Your task to perform on an android device: Go to settings Image 0: 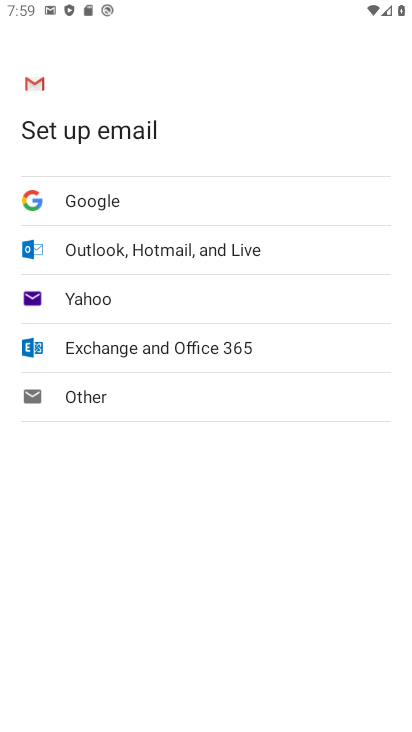
Step 0: press home button
Your task to perform on an android device: Go to settings Image 1: 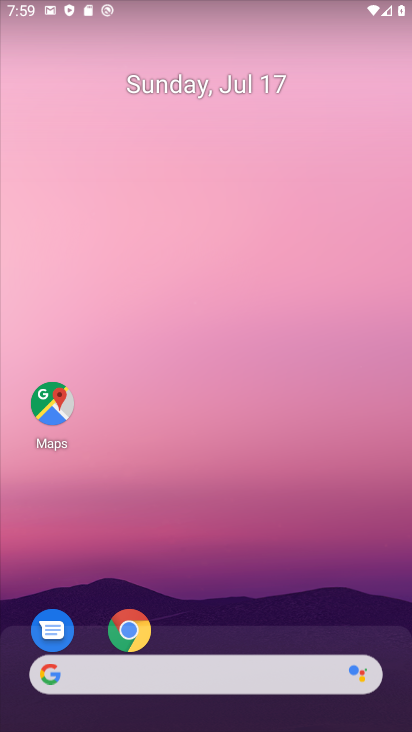
Step 1: drag from (252, 647) to (225, 217)
Your task to perform on an android device: Go to settings Image 2: 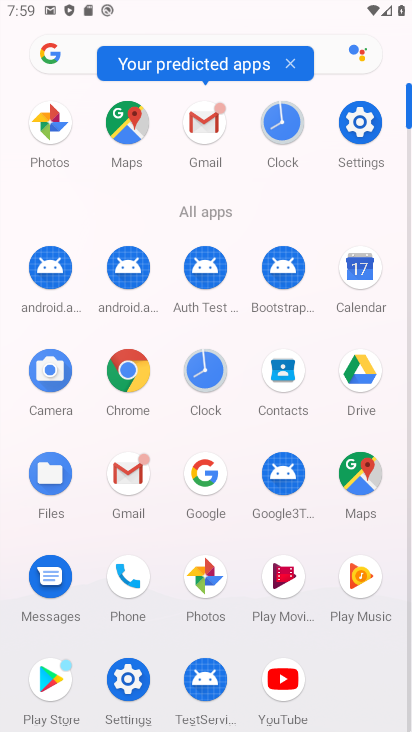
Step 2: click (121, 683)
Your task to perform on an android device: Go to settings Image 3: 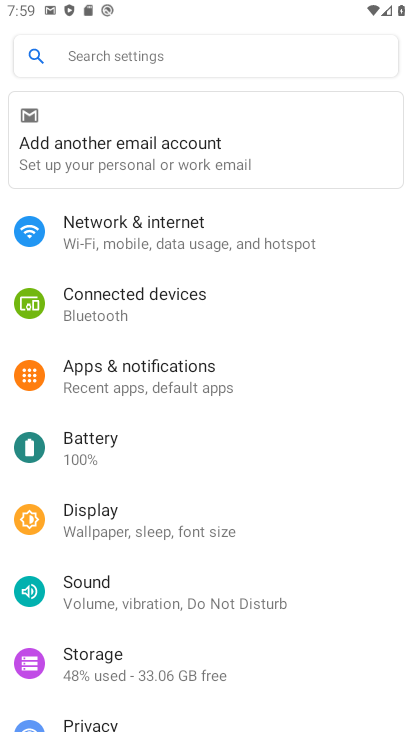
Step 3: task complete